Your task to perform on an android device: change text size in settings app Image 0: 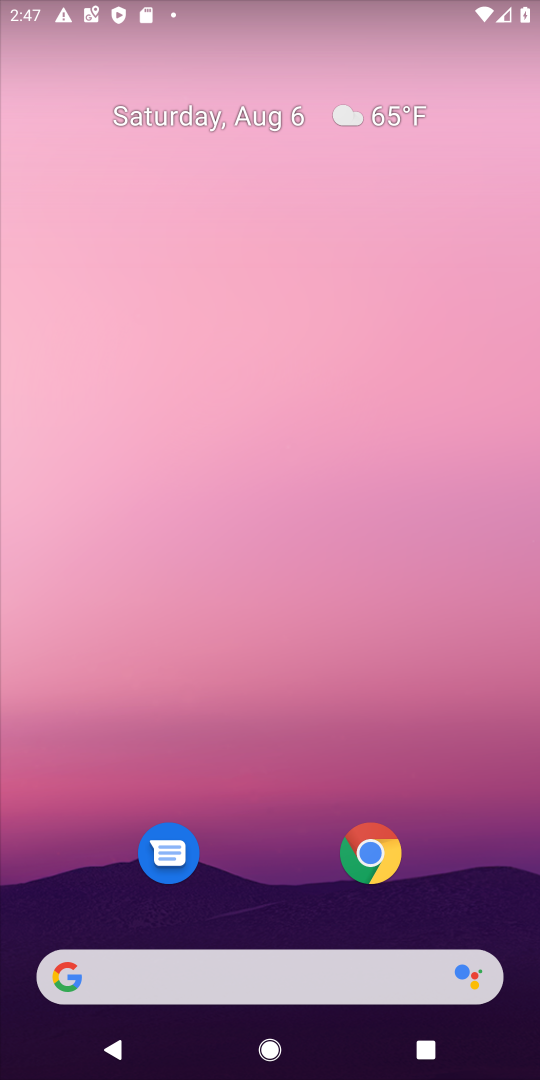
Step 0: drag from (244, 887) to (287, 173)
Your task to perform on an android device: change text size in settings app Image 1: 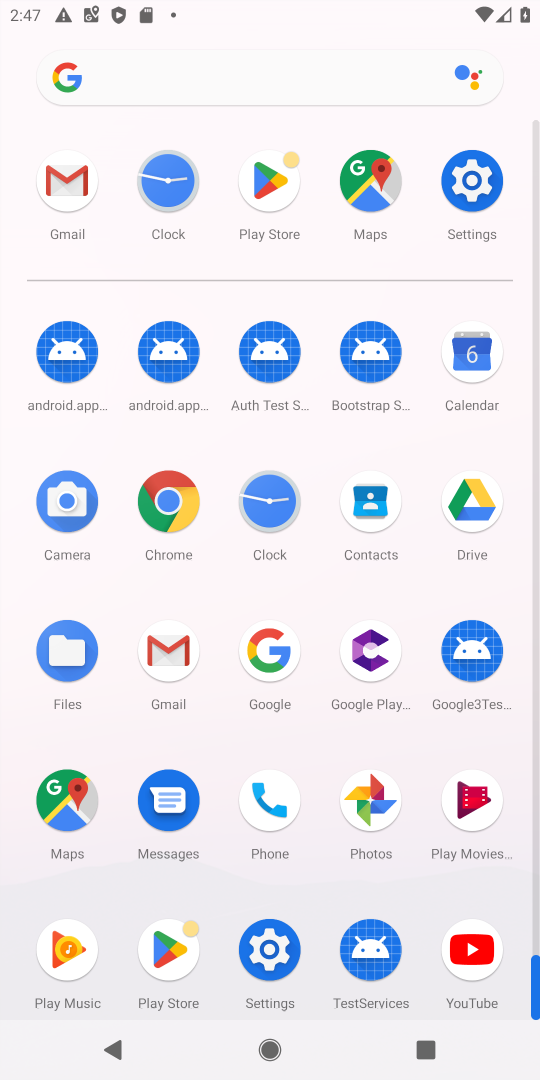
Step 1: click (472, 175)
Your task to perform on an android device: change text size in settings app Image 2: 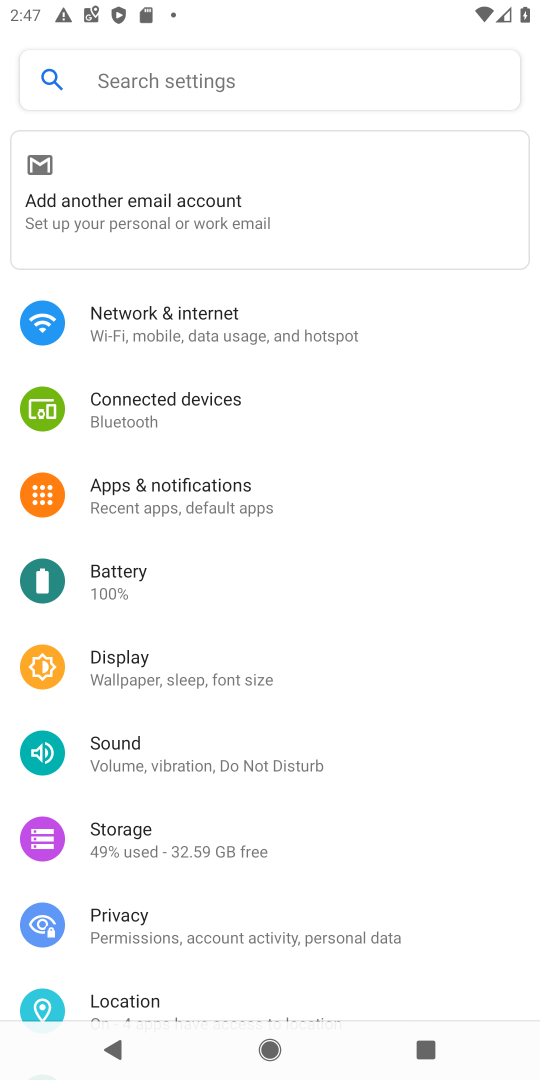
Step 2: click (222, 73)
Your task to perform on an android device: change text size in settings app Image 3: 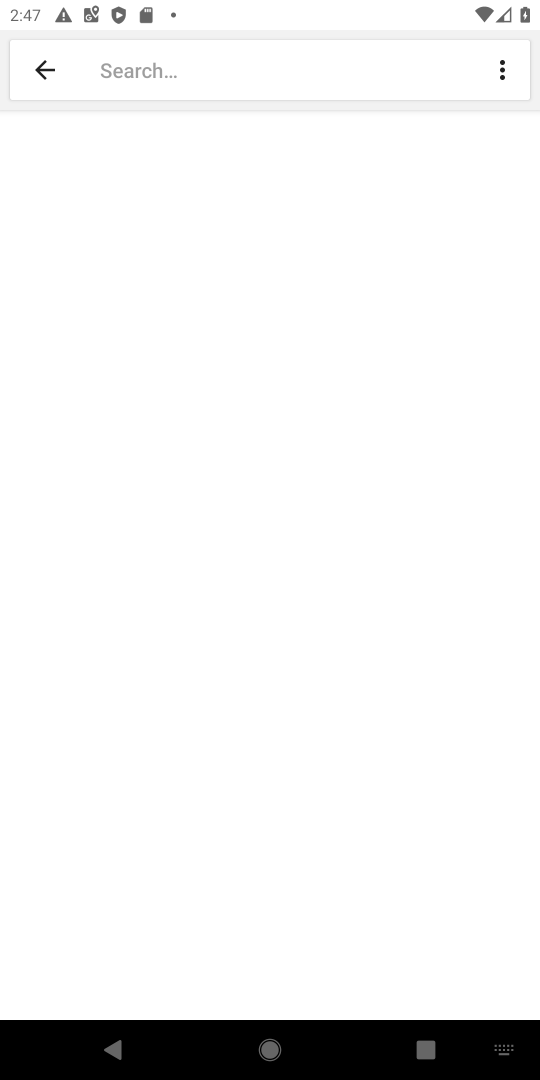
Step 3: type "text size"
Your task to perform on an android device: change text size in settings app Image 4: 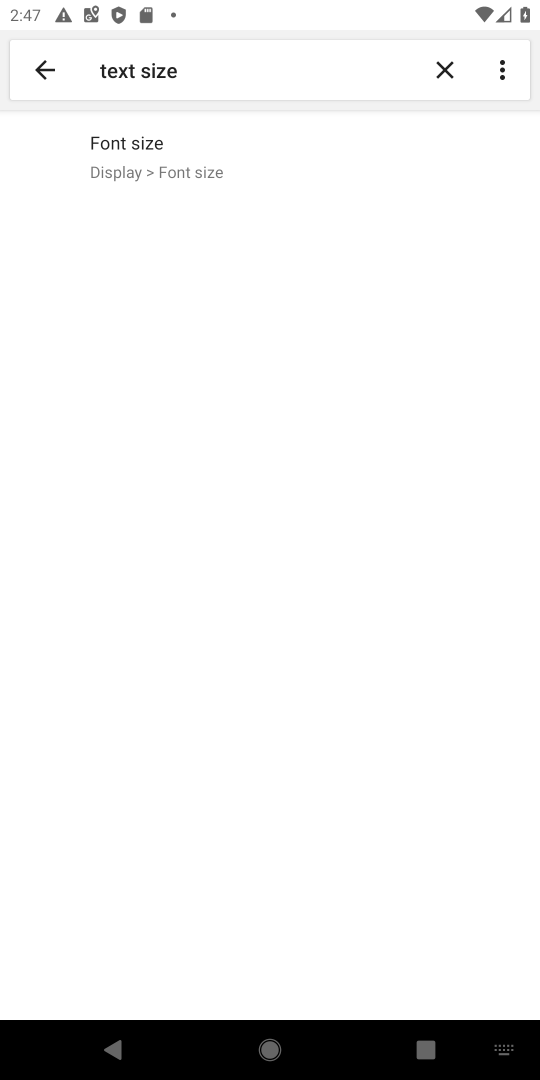
Step 4: click (142, 133)
Your task to perform on an android device: change text size in settings app Image 5: 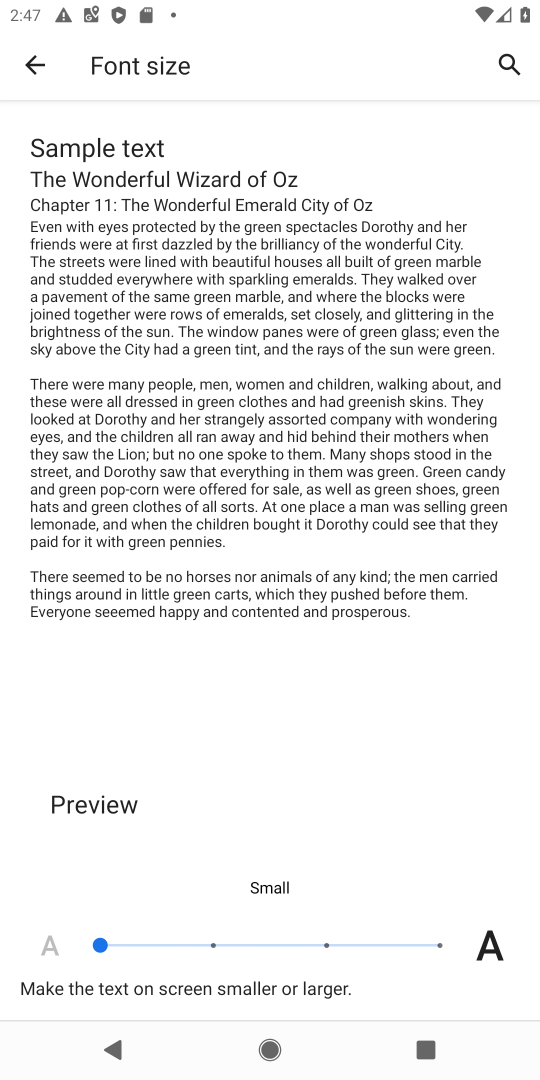
Step 5: click (213, 935)
Your task to perform on an android device: change text size in settings app Image 6: 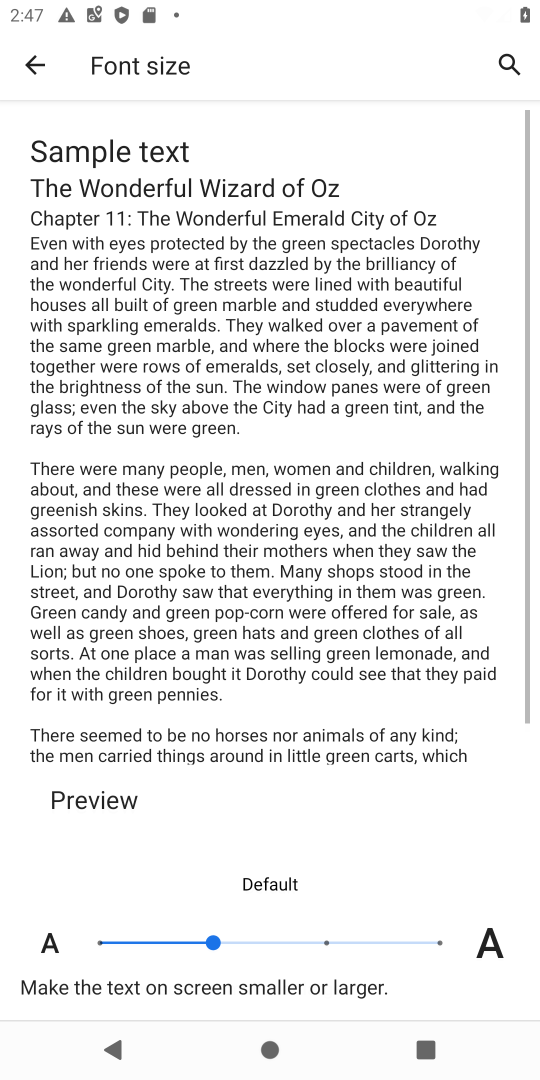
Step 6: click (322, 945)
Your task to perform on an android device: change text size in settings app Image 7: 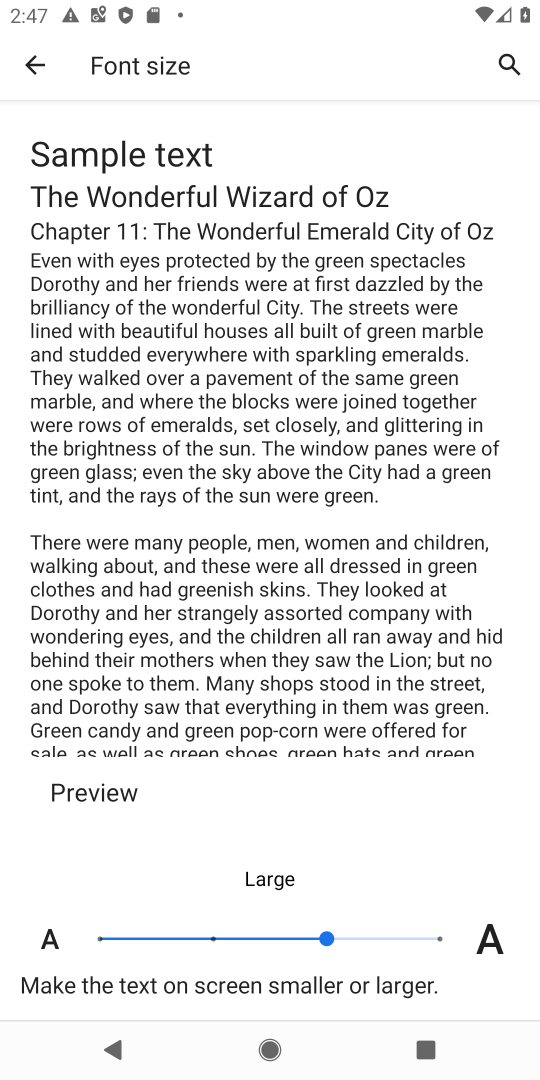
Step 7: task complete